Your task to perform on an android device: delete location history Image 0: 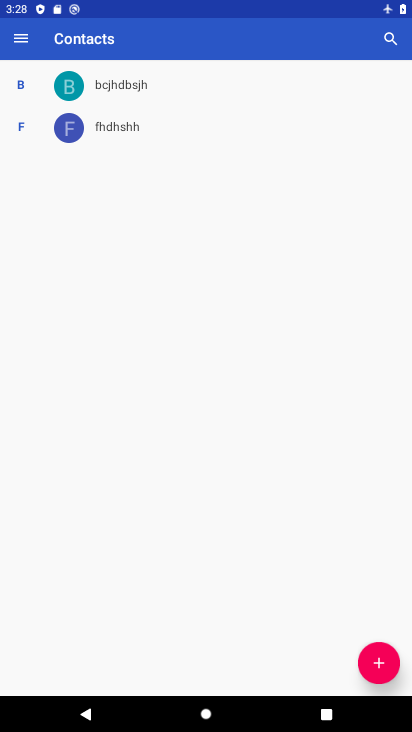
Step 0: press home button
Your task to perform on an android device: delete location history Image 1: 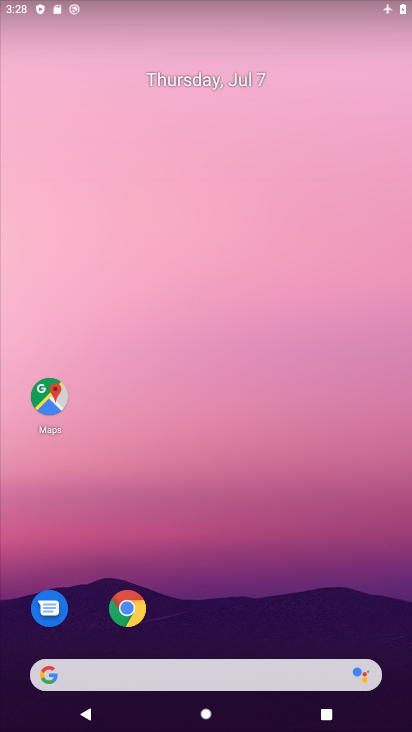
Step 1: drag from (269, 578) to (157, 64)
Your task to perform on an android device: delete location history Image 2: 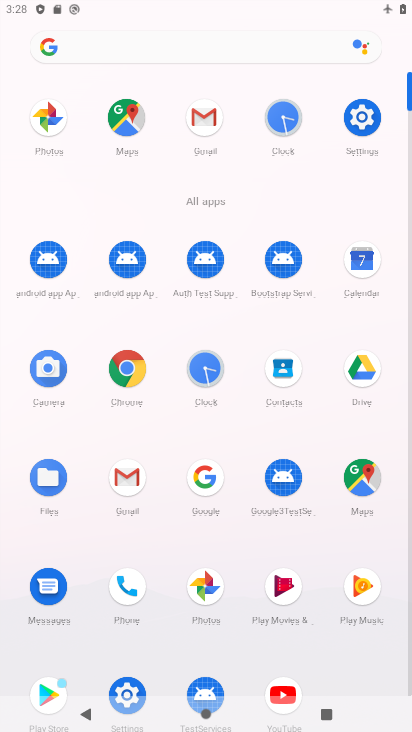
Step 2: click (130, 125)
Your task to perform on an android device: delete location history Image 3: 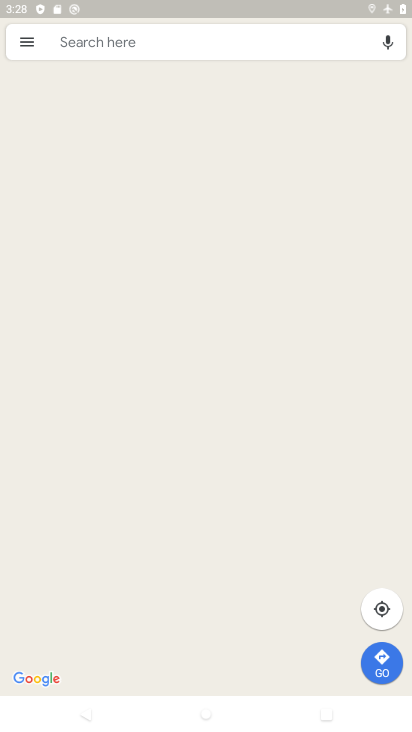
Step 3: click (27, 42)
Your task to perform on an android device: delete location history Image 4: 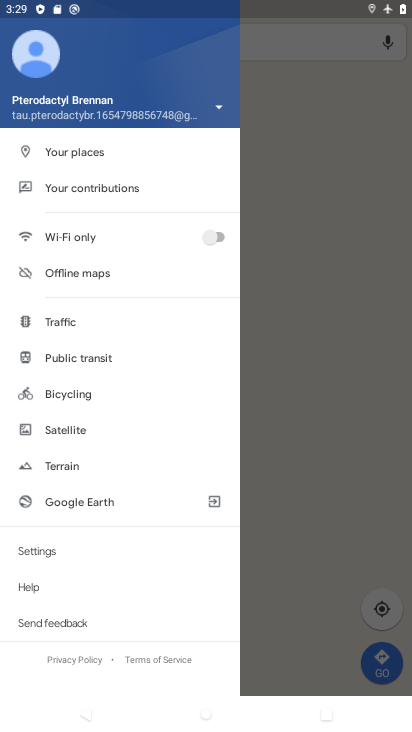
Step 4: click (91, 558)
Your task to perform on an android device: delete location history Image 5: 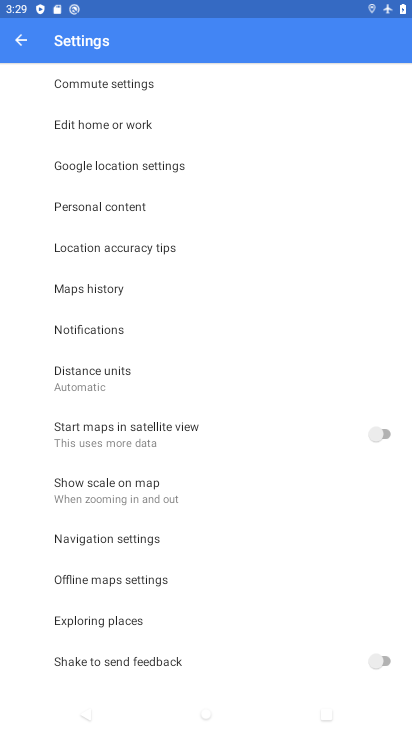
Step 5: click (20, 35)
Your task to perform on an android device: delete location history Image 6: 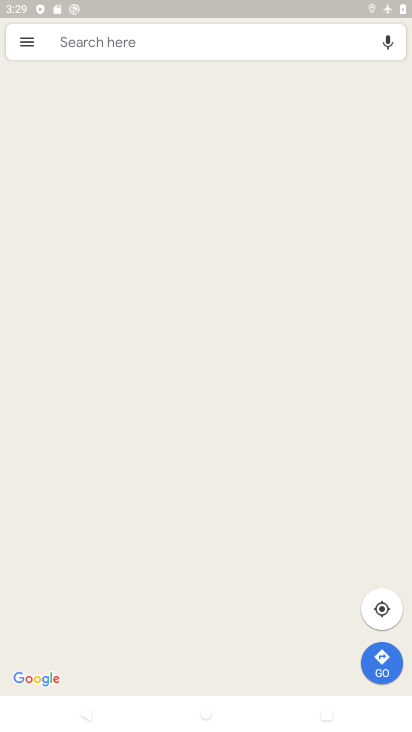
Step 6: click (28, 40)
Your task to perform on an android device: delete location history Image 7: 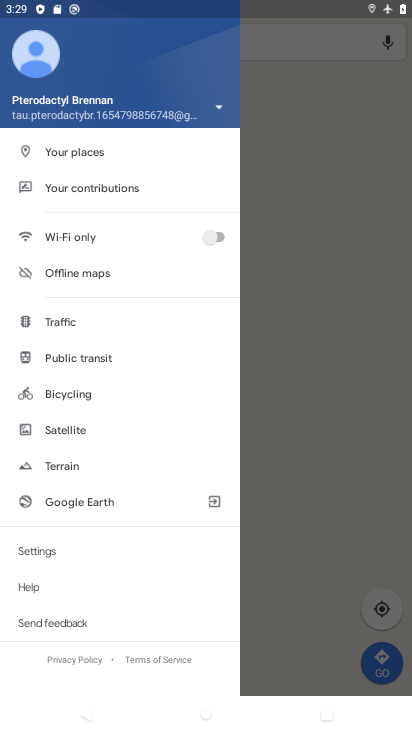
Step 7: task complete